Your task to perform on an android device: change your default location settings in chrome Image 0: 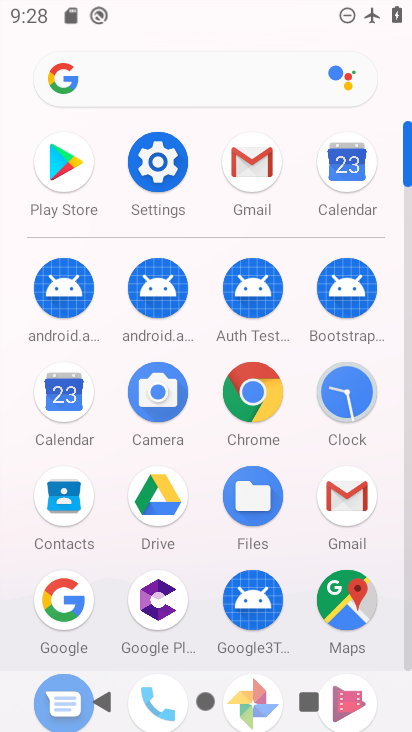
Step 0: press home button
Your task to perform on an android device: change your default location settings in chrome Image 1: 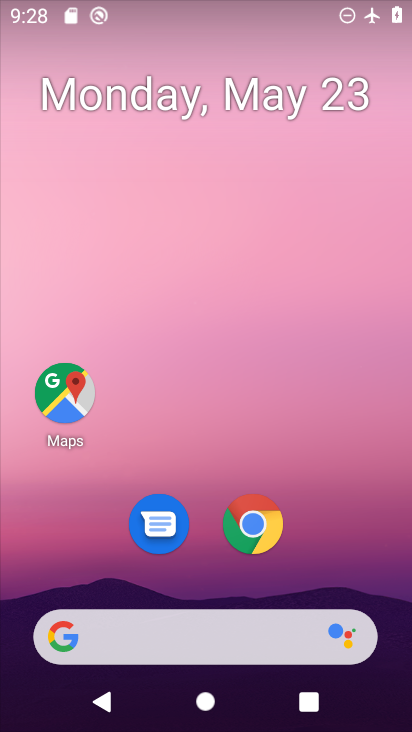
Step 1: click (257, 514)
Your task to perform on an android device: change your default location settings in chrome Image 2: 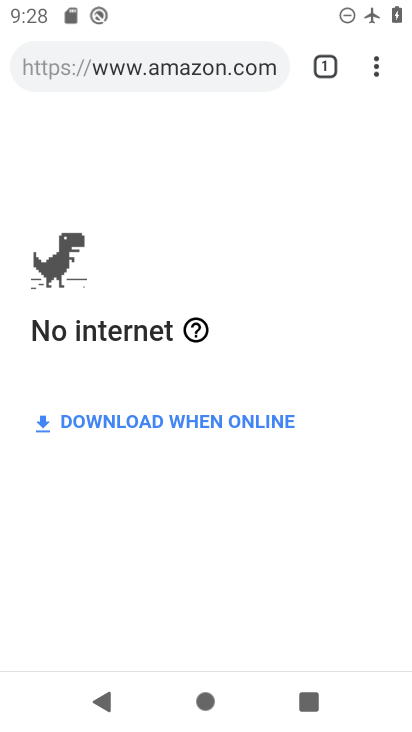
Step 2: click (372, 65)
Your task to perform on an android device: change your default location settings in chrome Image 3: 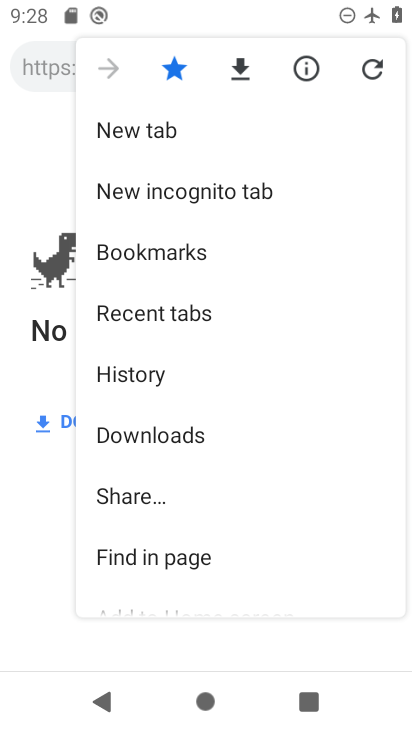
Step 3: drag from (216, 446) to (261, 171)
Your task to perform on an android device: change your default location settings in chrome Image 4: 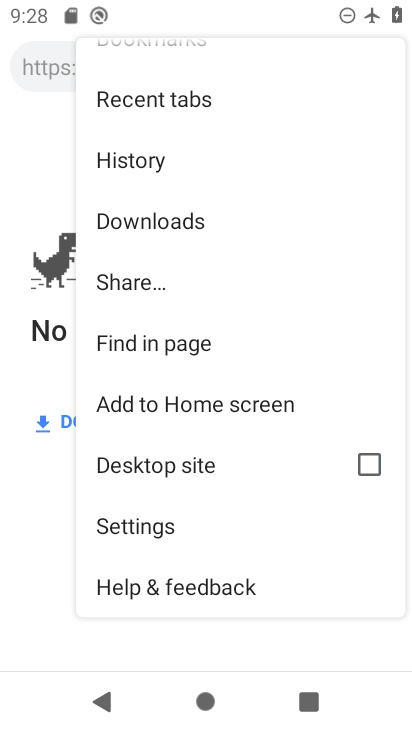
Step 4: click (216, 529)
Your task to perform on an android device: change your default location settings in chrome Image 5: 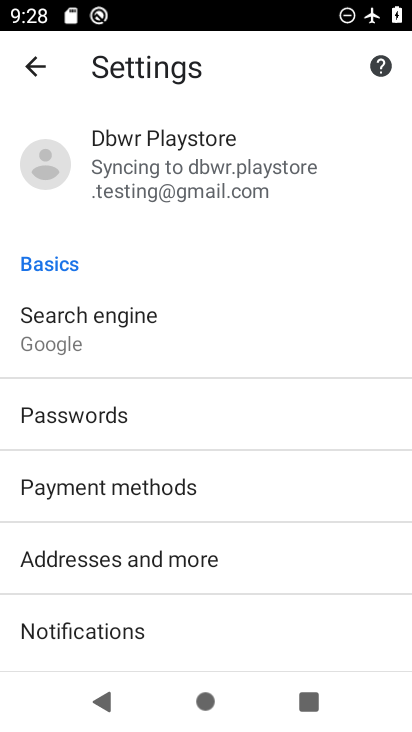
Step 5: drag from (216, 528) to (275, 163)
Your task to perform on an android device: change your default location settings in chrome Image 6: 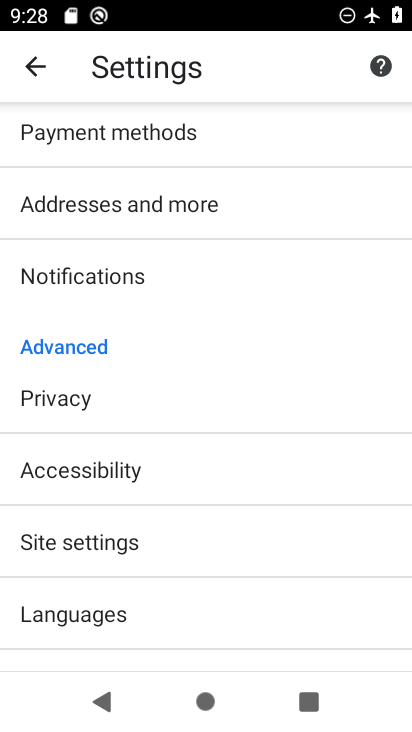
Step 6: click (193, 536)
Your task to perform on an android device: change your default location settings in chrome Image 7: 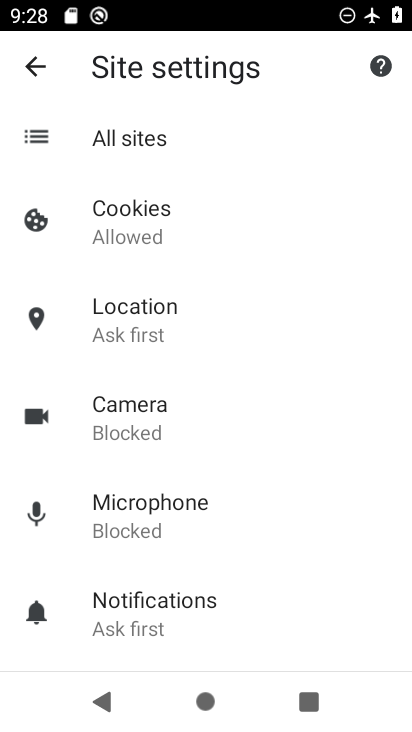
Step 7: click (184, 323)
Your task to perform on an android device: change your default location settings in chrome Image 8: 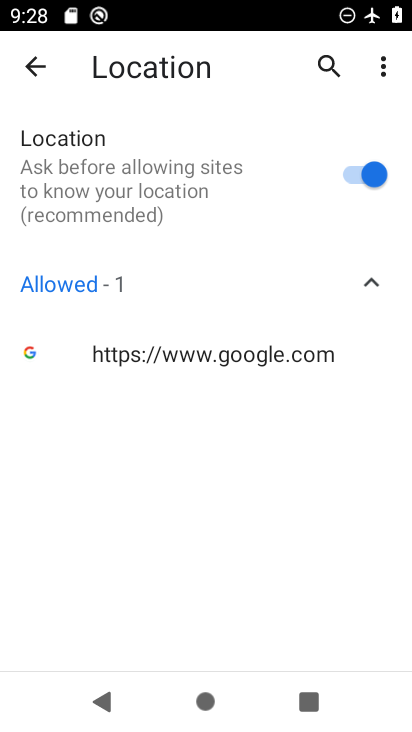
Step 8: click (350, 158)
Your task to perform on an android device: change your default location settings in chrome Image 9: 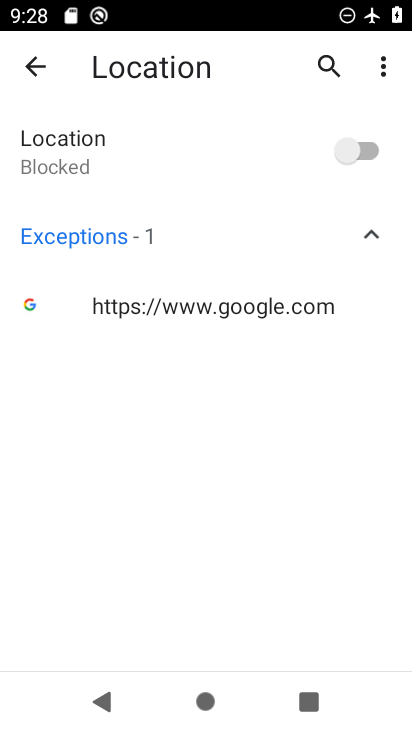
Step 9: task complete